Your task to perform on an android device: turn off location Image 0: 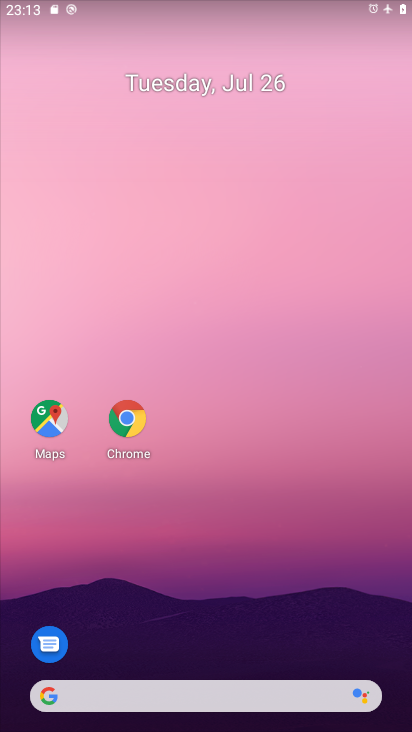
Step 0: drag from (192, 647) to (255, 219)
Your task to perform on an android device: turn off location Image 1: 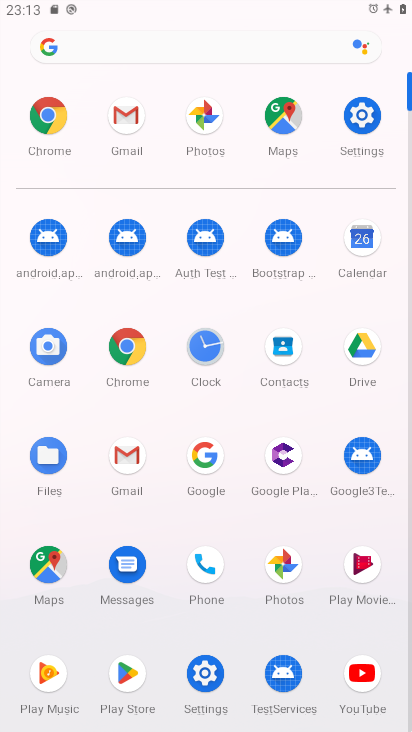
Step 1: click (341, 114)
Your task to perform on an android device: turn off location Image 2: 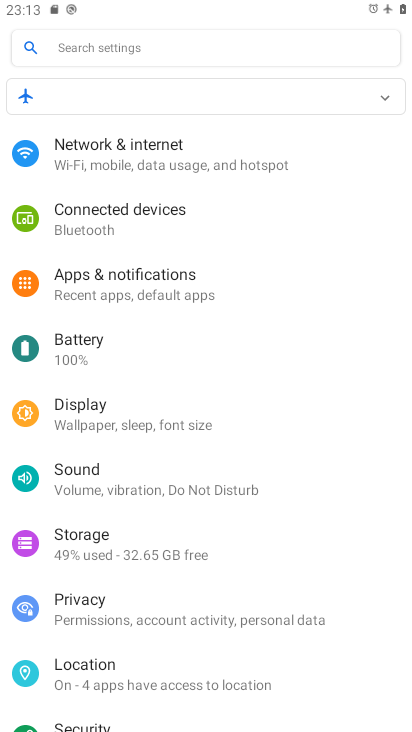
Step 2: click (110, 664)
Your task to perform on an android device: turn off location Image 3: 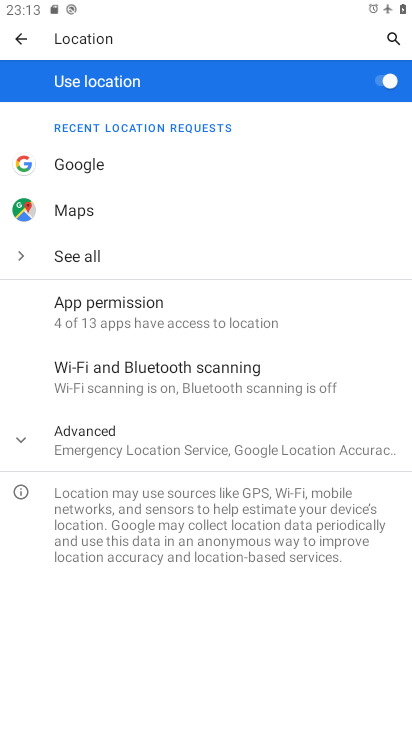
Step 3: click (369, 90)
Your task to perform on an android device: turn off location Image 4: 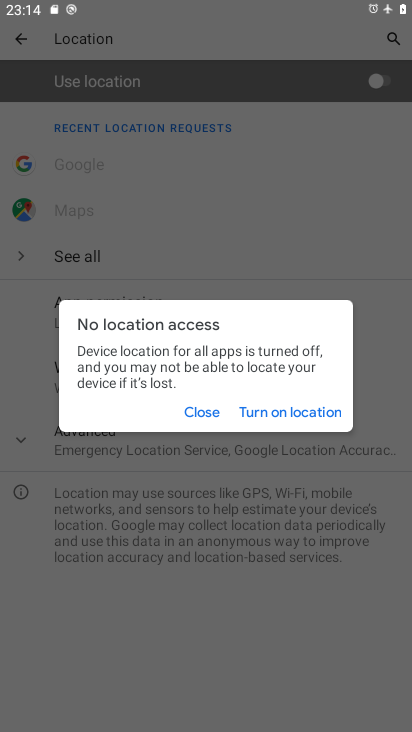
Step 4: click (200, 407)
Your task to perform on an android device: turn off location Image 5: 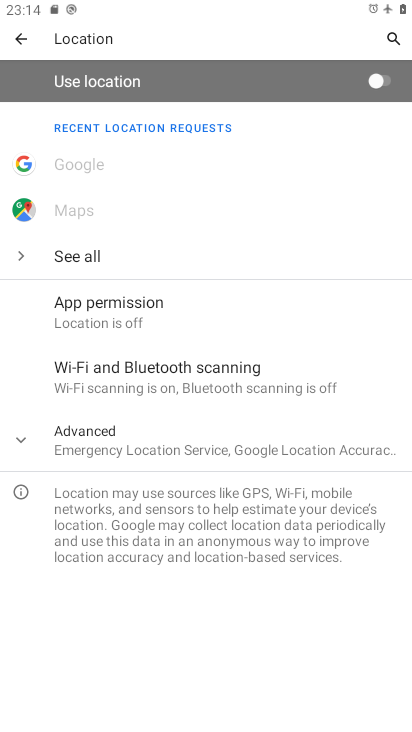
Step 5: task complete